Your task to perform on an android device: open a new tab in the chrome app Image 0: 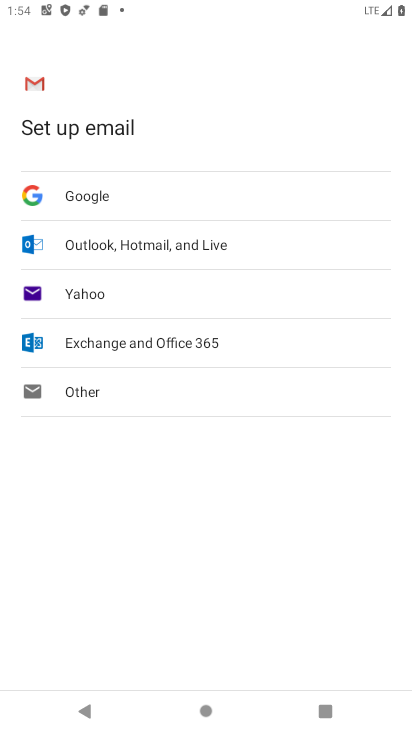
Step 0: press home button
Your task to perform on an android device: open a new tab in the chrome app Image 1: 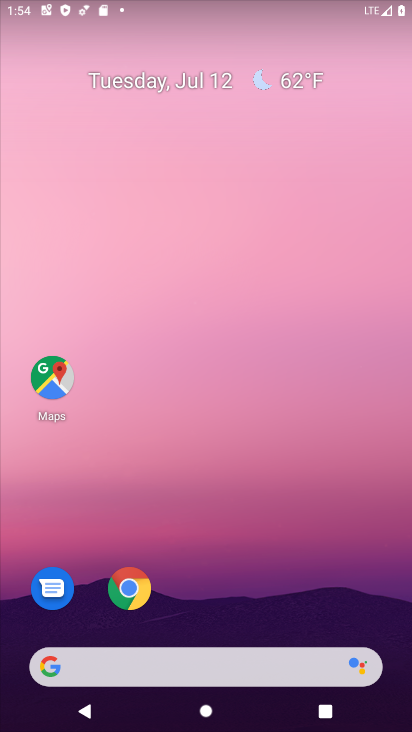
Step 1: click (123, 587)
Your task to perform on an android device: open a new tab in the chrome app Image 2: 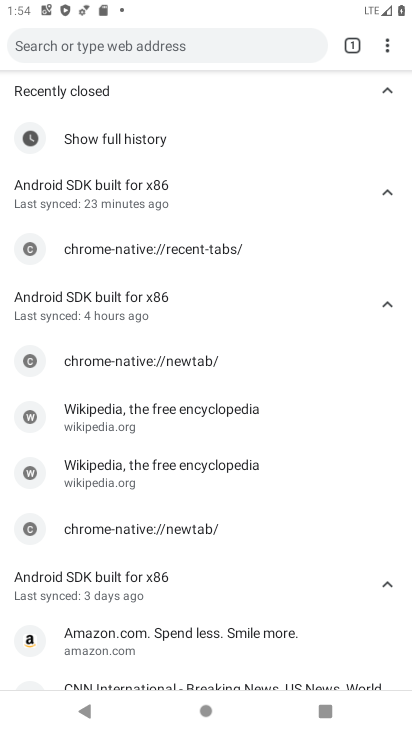
Step 2: click (387, 41)
Your task to perform on an android device: open a new tab in the chrome app Image 3: 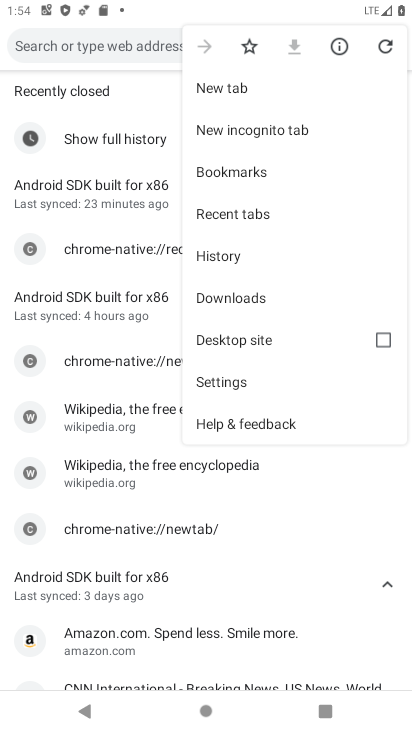
Step 3: click (293, 89)
Your task to perform on an android device: open a new tab in the chrome app Image 4: 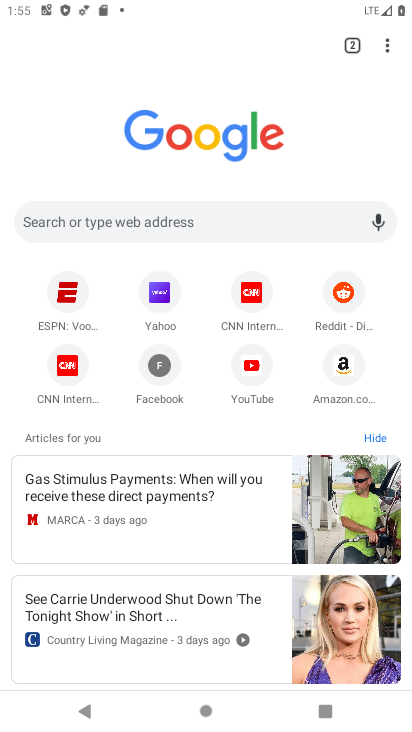
Step 4: task complete